Your task to perform on an android device: choose inbox layout in the gmail app Image 0: 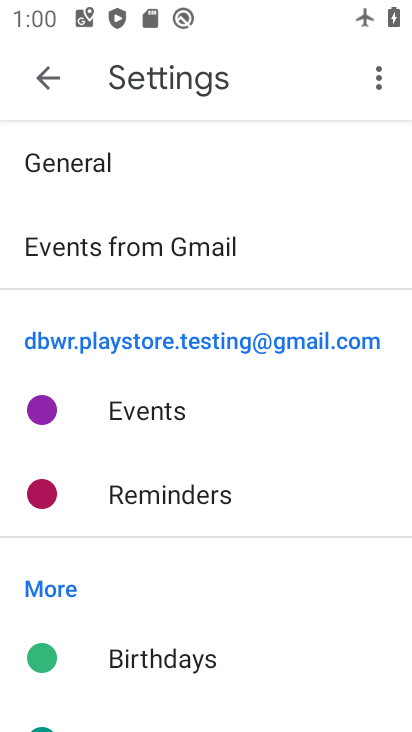
Step 0: press home button
Your task to perform on an android device: choose inbox layout in the gmail app Image 1: 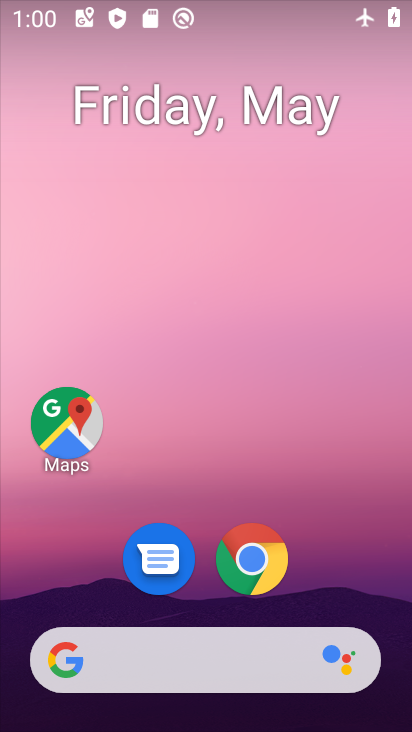
Step 1: drag from (351, 450) to (332, 184)
Your task to perform on an android device: choose inbox layout in the gmail app Image 2: 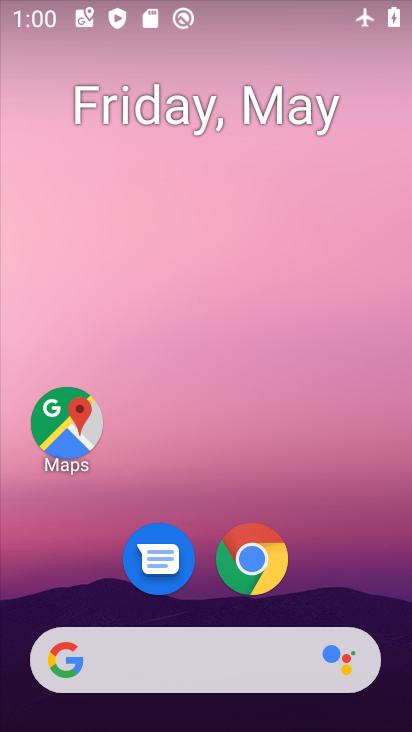
Step 2: drag from (339, 426) to (327, 98)
Your task to perform on an android device: choose inbox layout in the gmail app Image 3: 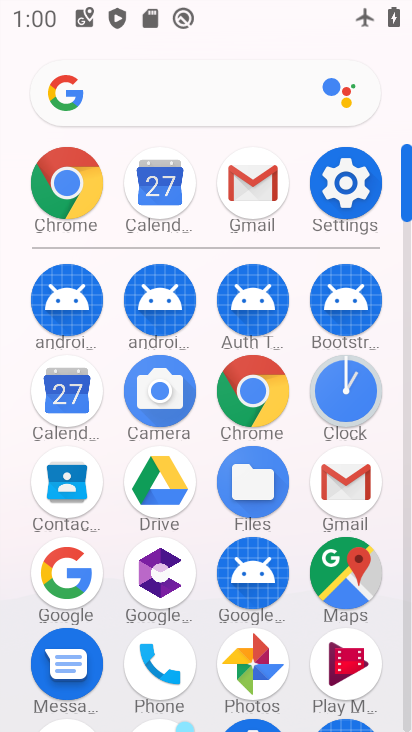
Step 3: click (268, 196)
Your task to perform on an android device: choose inbox layout in the gmail app Image 4: 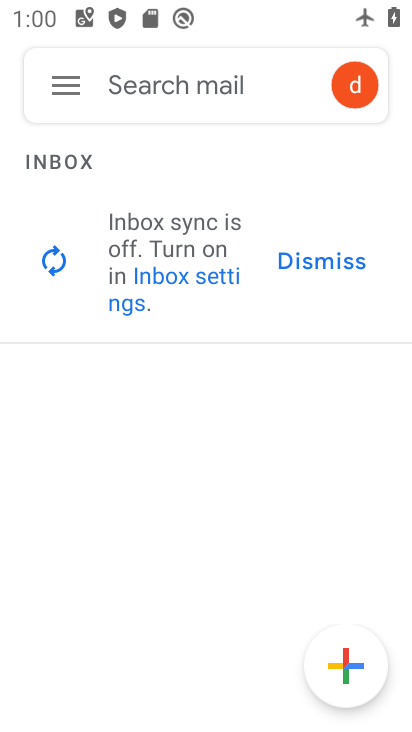
Step 4: click (72, 88)
Your task to perform on an android device: choose inbox layout in the gmail app Image 5: 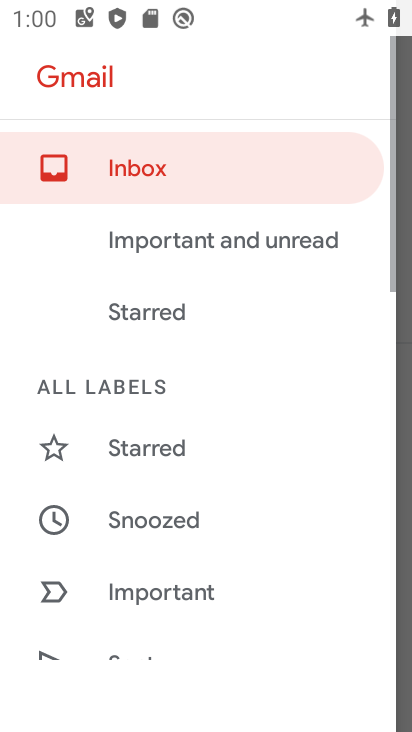
Step 5: drag from (155, 615) to (244, 105)
Your task to perform on an android device: choose inbox layout in the gmail app Image 6: 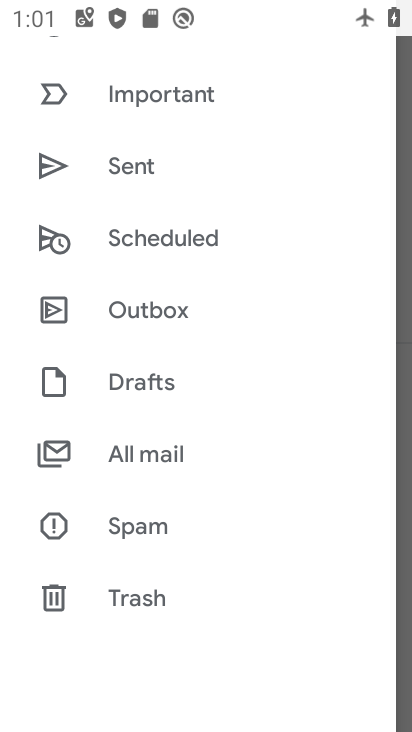
Step 6: drag from (211, 580) to (269, 168)
Your task to perform on an android device: choose inbox layout in the gmail app Image 7: 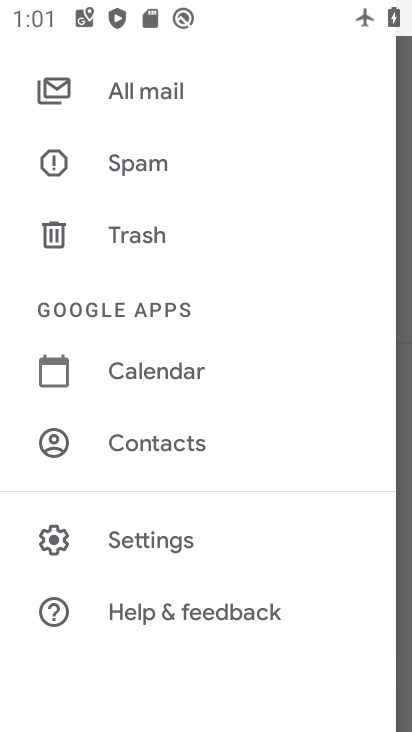
Step 7: click (185, 550)
Your task to perform on an android device: choose inbox layout in the gmail app Image 8: 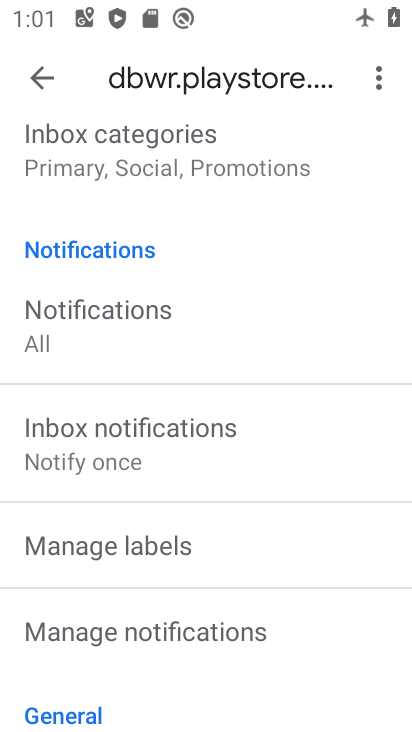
Step 8: drag from (139, 231) to (191, 690)
Your task to perform on an android device: choose inbox layout in the gmail app Image 9: 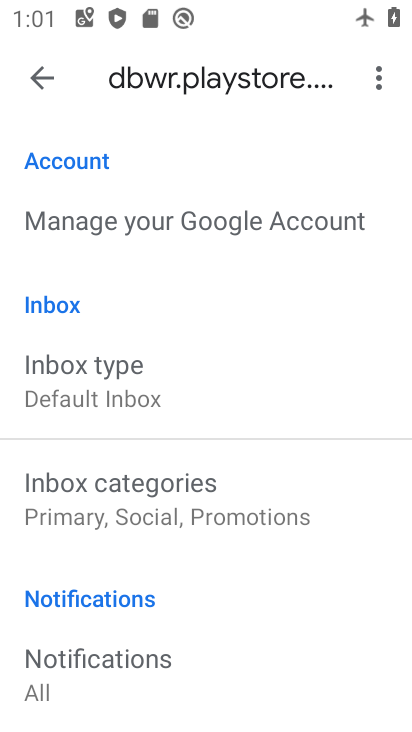
Step 9: click (130, 363)
Your task to perform on an android device: choose inbox layout in the gmail app Image 10: 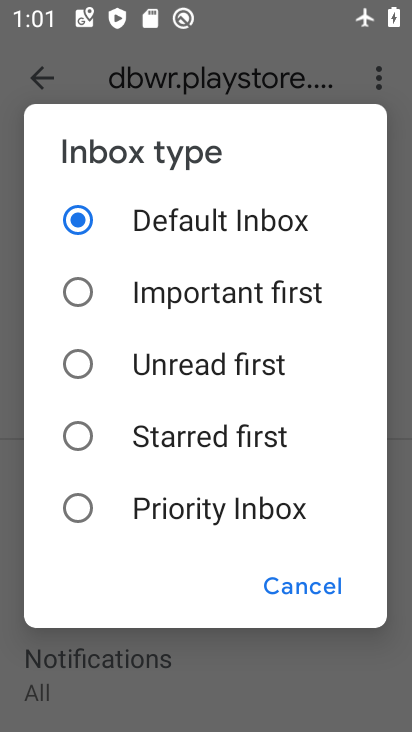
Step 10: task complete